Your task to perform on an android device: Open the stopwatch Image 0: 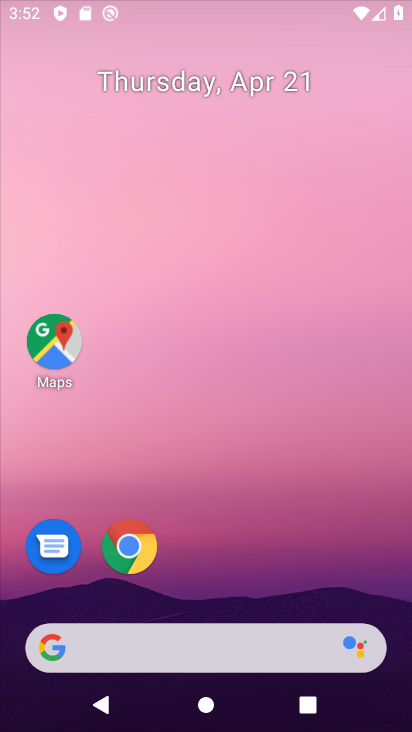
Step 0: drag from (219, 464) to (354, 104)
Your task to perform on an android device: Open the stopwatch Image 1: 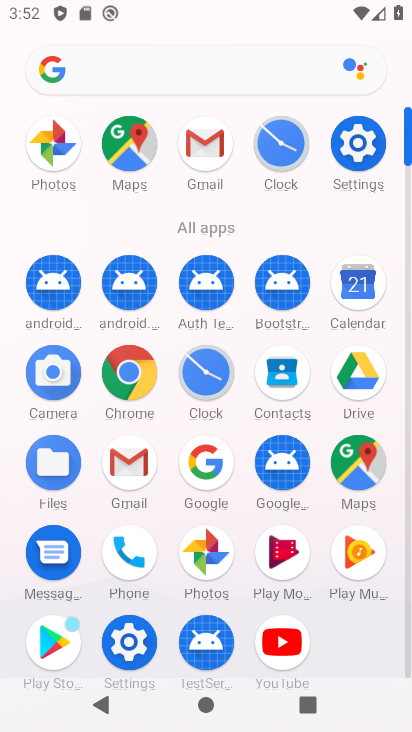
Step 1: click (223, 373)
Your task to perform on an android device: Open the stopwatch Image 2: 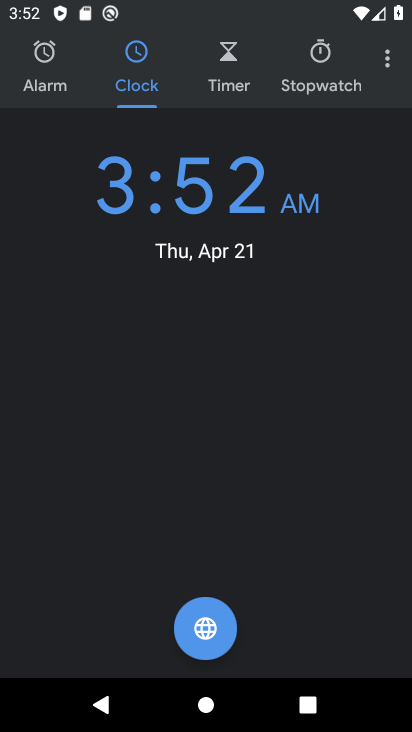
Step 2: click (336, 64)
Your task to perform on an android device: Open the stopwatch Image 3: 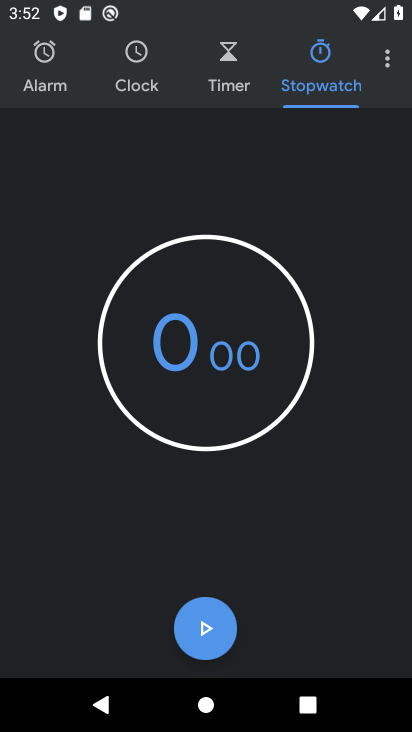
Step 3: task complete